Your task to perform on an android device: change your default location settings in chrome Image 0: 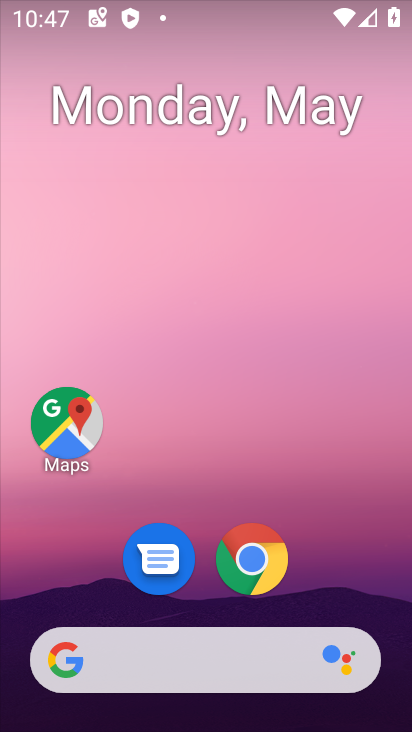
Step 0: click (239, 564)
Your task to perform on an android device: change your default location settings in chrome Image 1: 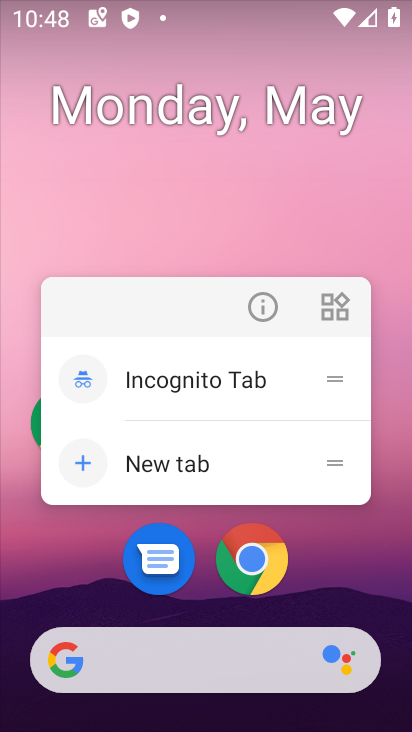
Step 1: click (233, 578)
Your task to perform on an android device: change your default location settings in chrome Image 2: 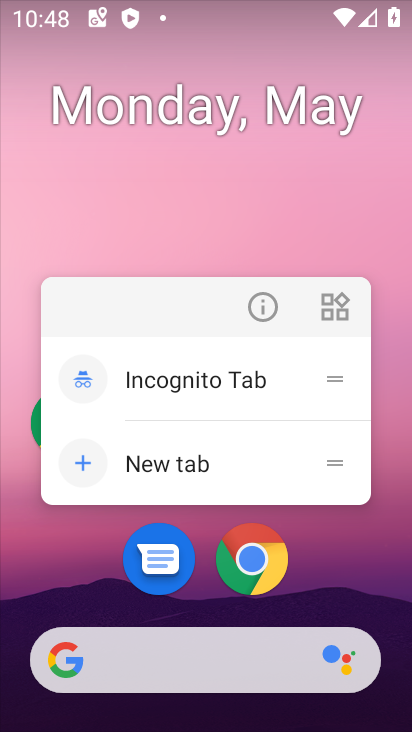
Step 2: click (233, 578)
Your task to perform on an android device: change your default location settings in chrome Image 3: 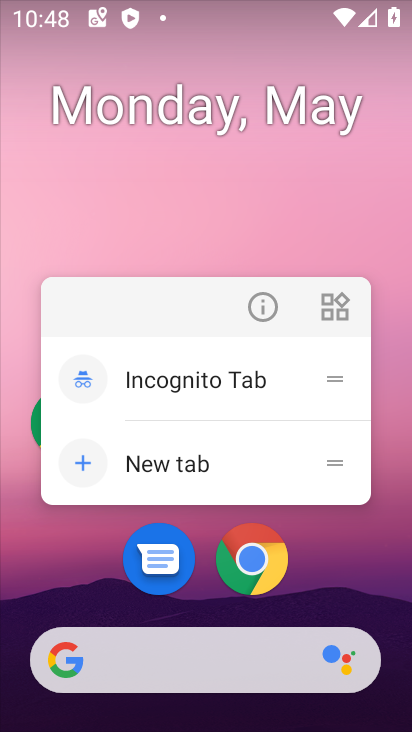
Step 3: click (233, 578)
Your task to perform on an android device: change your default location settings in chrome Image 4: 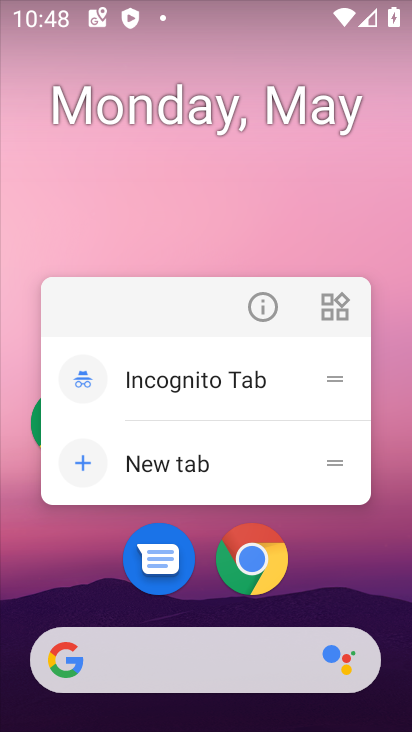
Step 4: click (233, 578)
Your task to perform on an android device: change your default location settings in chrome Image 5: 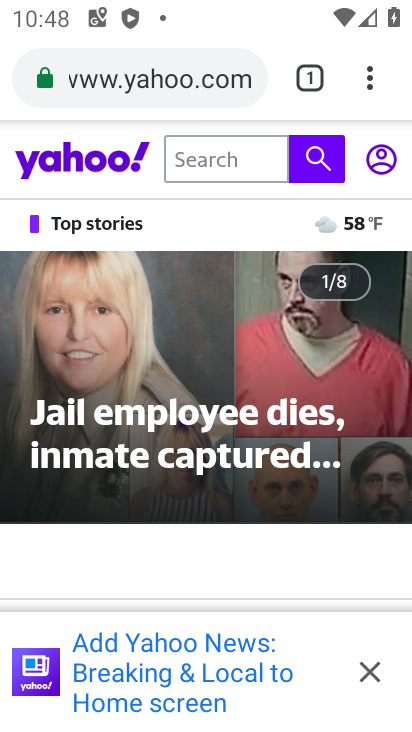
Step 5: drag from (393, 76) to (122, 633)
Your task to perform on an android device: change your default location settings in chrome Image 6: 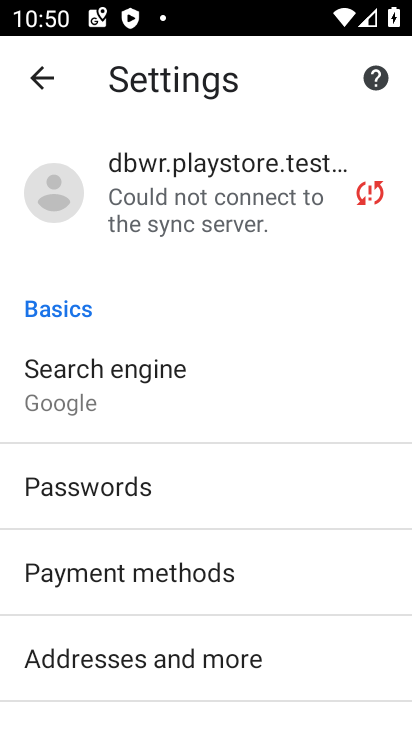
Step 6: drag from (290, 676) to (304, 169)
Your task to perform on an android device: change your default location settings in chrome Image 7: 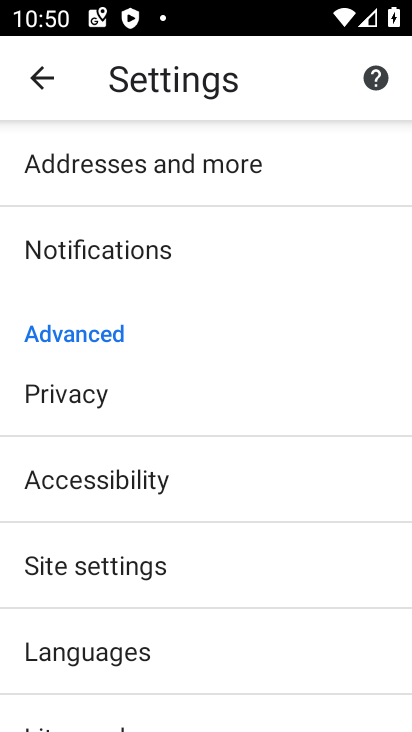
Step 7: drag from (296, 650) to (301, 168)
Your task to perform on an android device: change your default location settings in chrome Image 8: 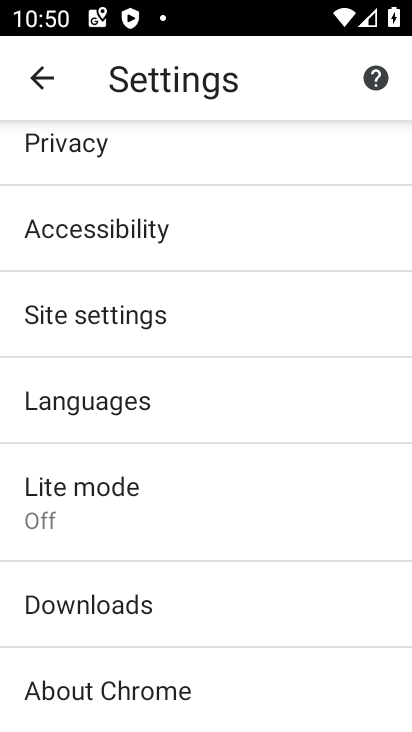
Step 8: click (176, 302)
Your task to perform on an android device: change your default location settings in chrome Image 9: 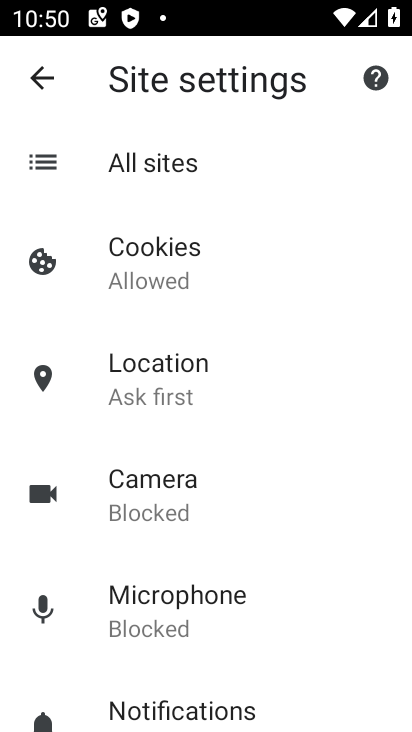
Step 9: drag from (249, 637) to (259, 707)
Your task to perform on an android device: change your default location settings in chrome Image 10: 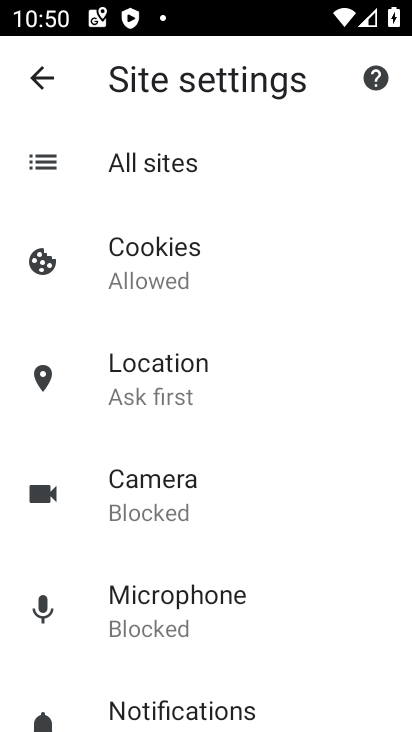
Step 10: click (223, 400)
Your task to perform on an android device: change your default location settings in chrome Image 11: 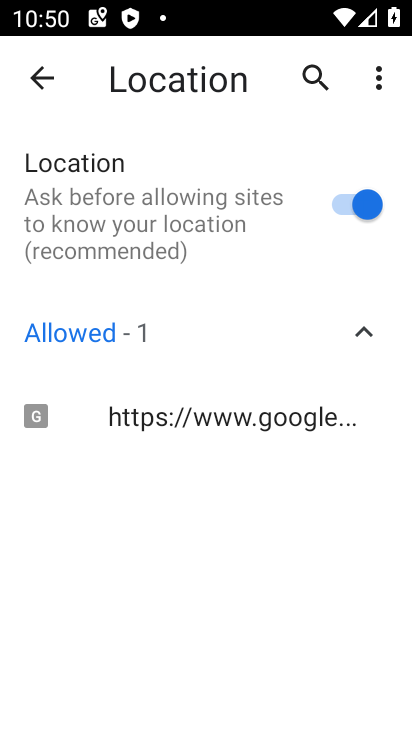
Step 11: click (296, 430)
Your task to perform on an android device: change your default location settings in chrome Image 12: 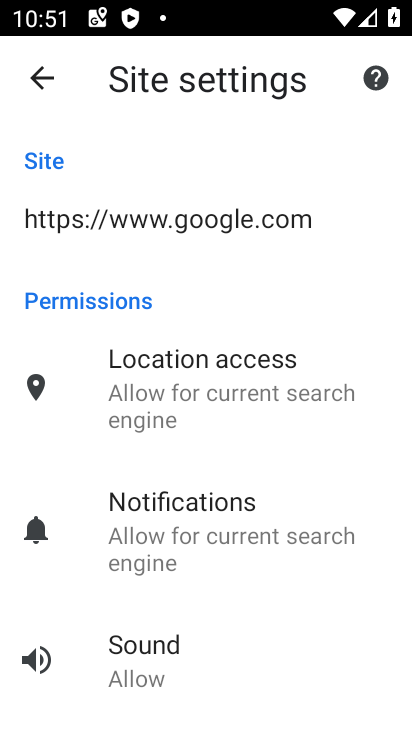
Step 12: click (292, 436)
Your task to perform on an android device: change your default location settings in chrome Image 13: 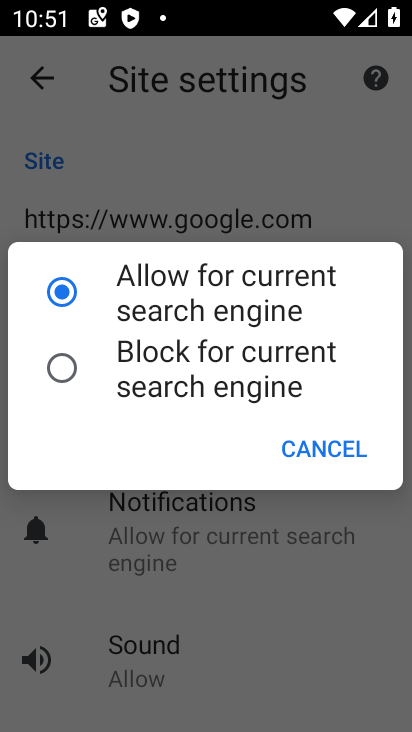
Step 13: task complete